Your task to perform on an android device: Empty the shopping cart on walmart. Search for razer naga on walmart, select the first entry, add it to the cart, then select checkout. Image 0: 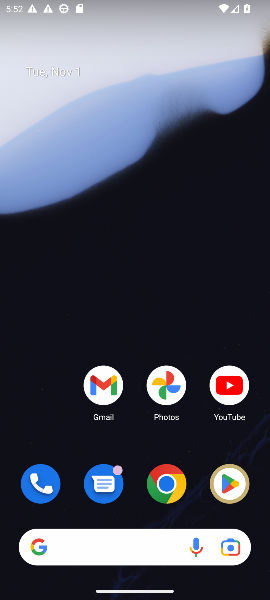
Step 0: click (225, 154)
Your task to perform on an android device: Empty the shopping cart on walmart. Search for razer naga on walmart, select the first entry, add it to the cart, then select checkout. Image 1: 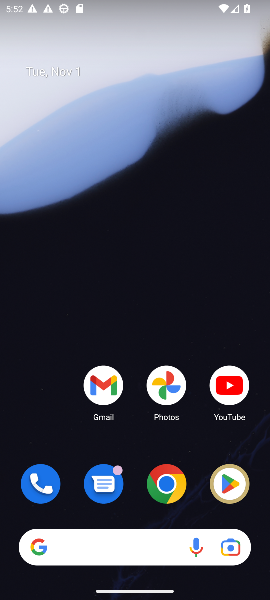
Step 1: click (171, 480)
Your task to perform on an android device: Empty the shopping cart on walmart. Search for razer naga on walmart, select the first entry, add it to the cart, then select checkout. Image 2: 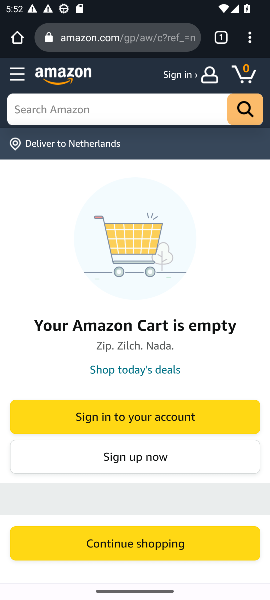
Step 2: click (98, 108)
Your task to perform on an android device: Empty the shopping cart on walmart. Search for razer naga on walmart, select the first entry, add it to the cart, then select checkout. Image 3: 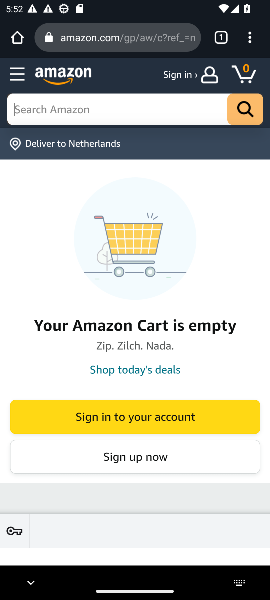
Step 3: click (97, 33)
Your task to perform on an android device: Empty the shopping cart on walmart. Search for razer naga on walmart, select the first entry, add it to the cart, then select checkout. Image 4: 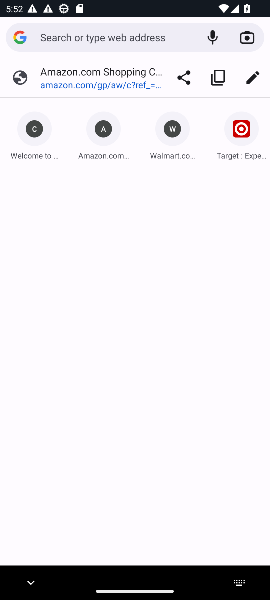
Step 4: type "Walmart"
Your task to perform on an android device: Empty the shopping cart on walmart. Search for razer naga on walmart, select the first entry, add it to the cart, then select checkout. Image 5: 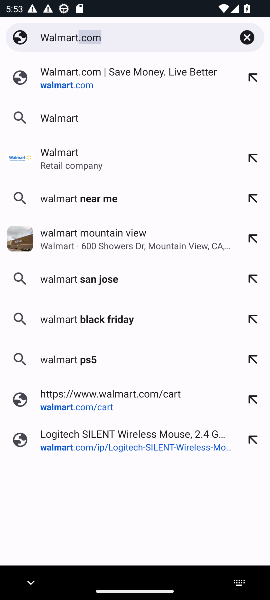
Step 5: click (99, 74)
Your task to perform on an android device: Empty the shopping cart on walmart. Search for razer naga on walmart, select the first entry, add it to the cart, then select checkout. Image 6: 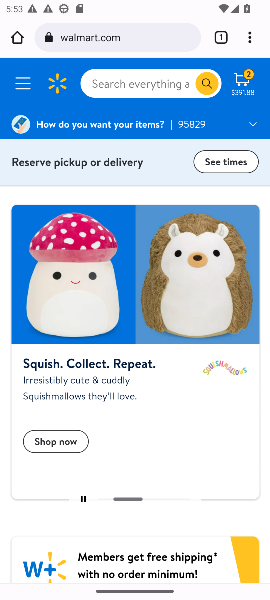
Step 6: click (244, 80)
Your task to perform on an android device: Empty the shopping cart on walmart. Search for razer naga on walmart, select the first entry, add it to the cart, then select checkout. Image 7: 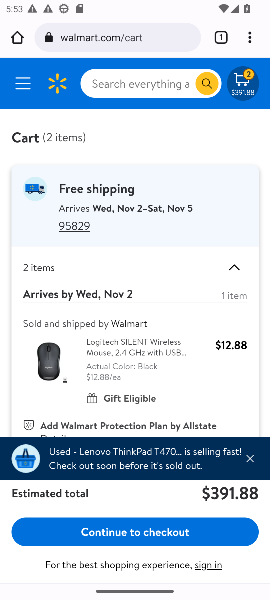
Step 7: drag from (158, 382) to (173, 162)
Your task to perform on an android device: Empty the shopping cart on walmart. Search for razer naga on walmart, select the first entry, add it to the cart, then select checkout. Image 8: 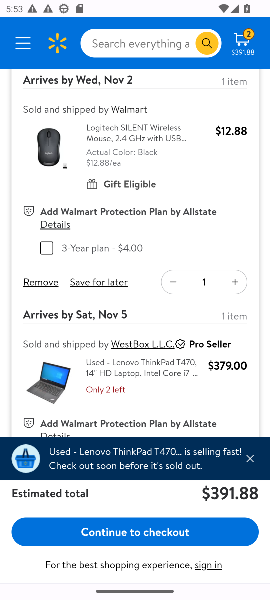
Step 8: click (242, 455)
Your task to perform on an android device: Empty the shopping cart on walmart. Search for razer naga on walmart, select the first entry, add it to the cart, then select checkout. Image 9: 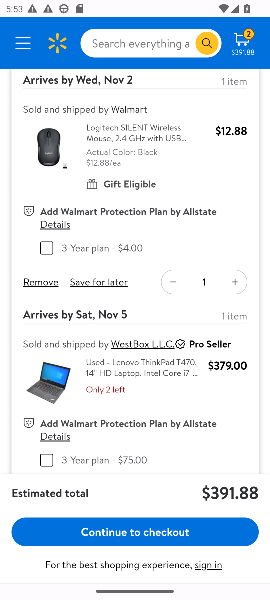
Step 9: click (35, 284)
Your task to perform on an android device: Empty the shopping cart on walmart. Search for razer naga on walmart, select the first entry, add it to the cart, then select checkout. Image 10: 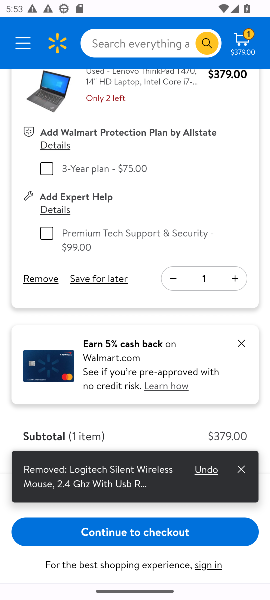
Step 10: click (39, 277)
Your task to perform on an android device: Empty the shopping cart on walmart. Search for razer naga on walmart, select the first entry, add it to the cart, then select checkout. Image 11: 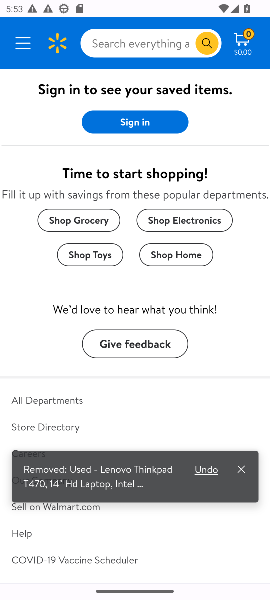
Step 11: click (109, 42)
Your task to perform on an android device: Empty the shopping cart on walmart. Search for razer naga on walmart, select the first entry, add it to the cart, then select checkout. Image 12: 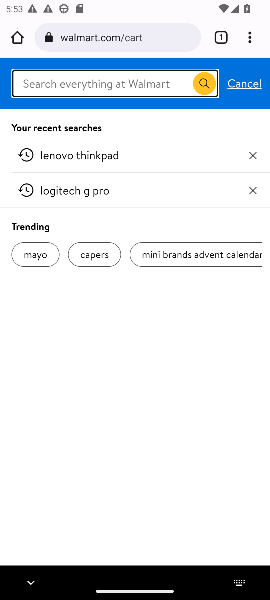
Step 12: type "razer naga"
Your task to perform on an android device: Empty the shopping cart on walmart. Search for razer naga on walmart, select the first entry, add it to the cart, then select checkout. Image 13: 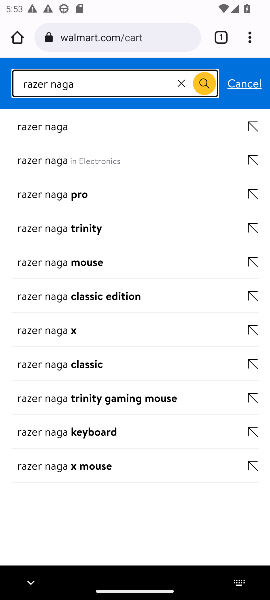
Step 13: click (56, 127)
Your task to perform on an android device: Empty the shopping cart on walmart. Search for razer naga on walmart, select the first entry, add it to the cart, then select checkout. Image 14: 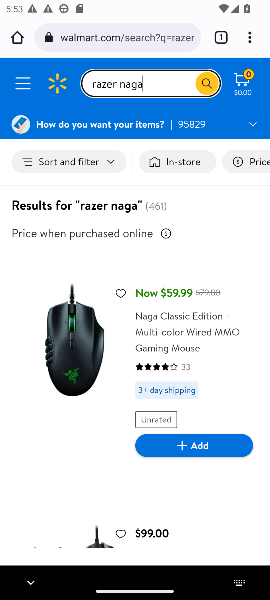
Step 14: click (203, 82)
Your task to perform on an android device: Empty the shopping cart on walmart. Search for razer naga on walmart, select the first entry, add it to the cart, then select checkout. Image 15: 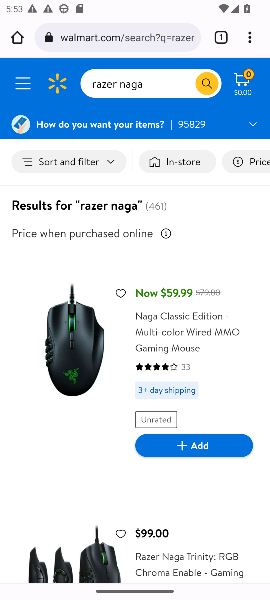
Step 15: click (209, 438)
Your task to perform on an android device: Empty the shopping cart on walmart. Search for razer naga on walmart, select the first entry, add it to the cart, then select checkout. Image 16: 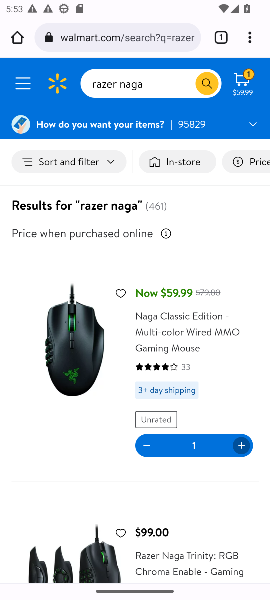
Step 16: click (240, 75)
Your task to perform on an android device: Empty the shopping cart on walmart. Search for razer naga on walmart, select the first entry, add it to the cart, then select checkout. Image 17: 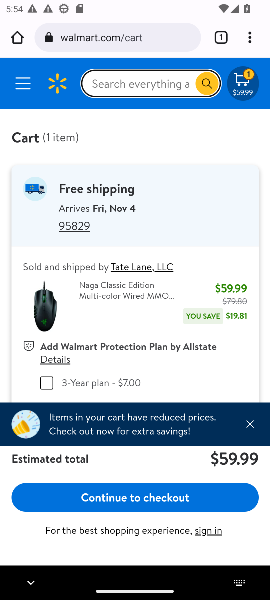
Step 17: click (157, 496)
Your task to perform on an android device: Empty the shopping cart on walmart. Search for razer naga on walmart, select the first entry, add it to the cart, then select checkout. Image 18: 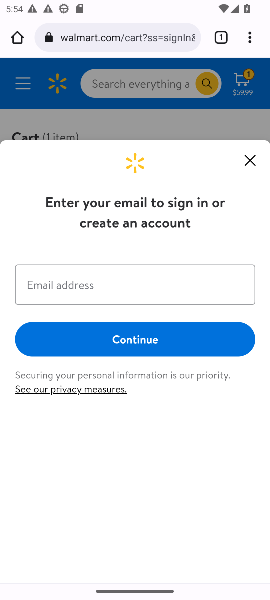
Step 18: task complete